Your task to perform on an android device: check google app version Image 0: 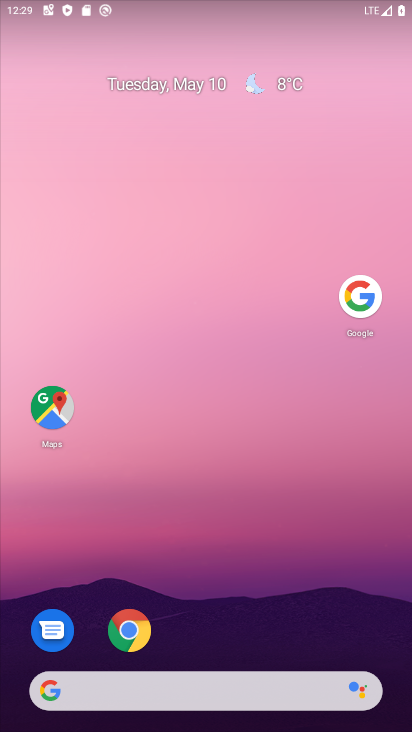
Step 0: press home button
Your task to perform on an android device: check google app version Image 1: 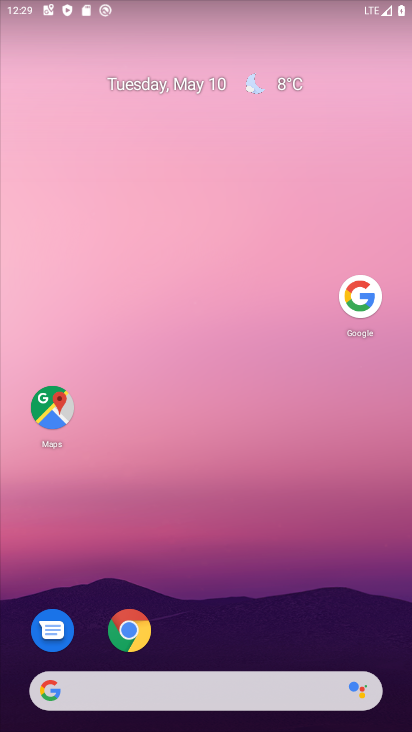
Step 1: click (355, 287)
Your task to perform on an android device: check google app version Image 2: 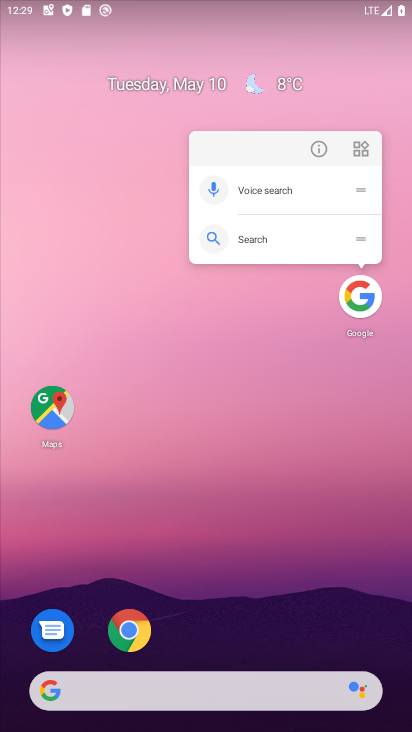
Step 2: click (322, 150)
Your task to perform on an android device: check google app version Image 3: 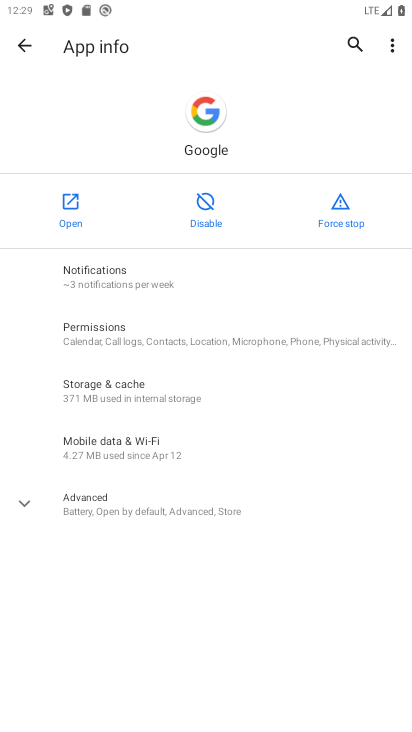
Step 3: drag from (182, 691) to (344, 389)
Your task to perform on an android device: check google app version Image 4: 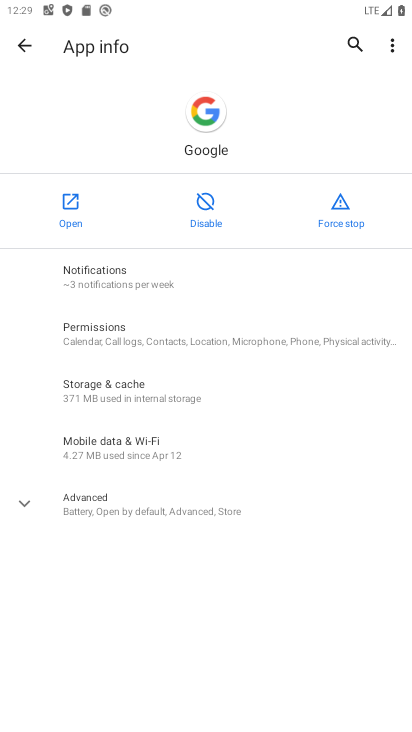
Step 4: click (112, 514)
Your task to perform on an android device: check google app version Image 5: 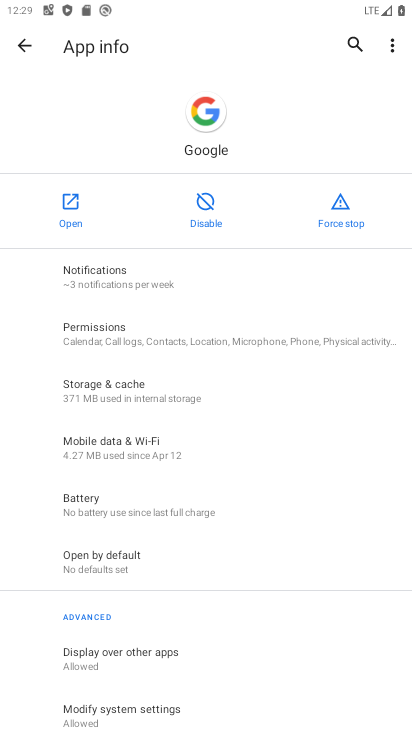
Step 5: task complete